Your task to perform on an android device: change the clock display to show seconds Image 0: 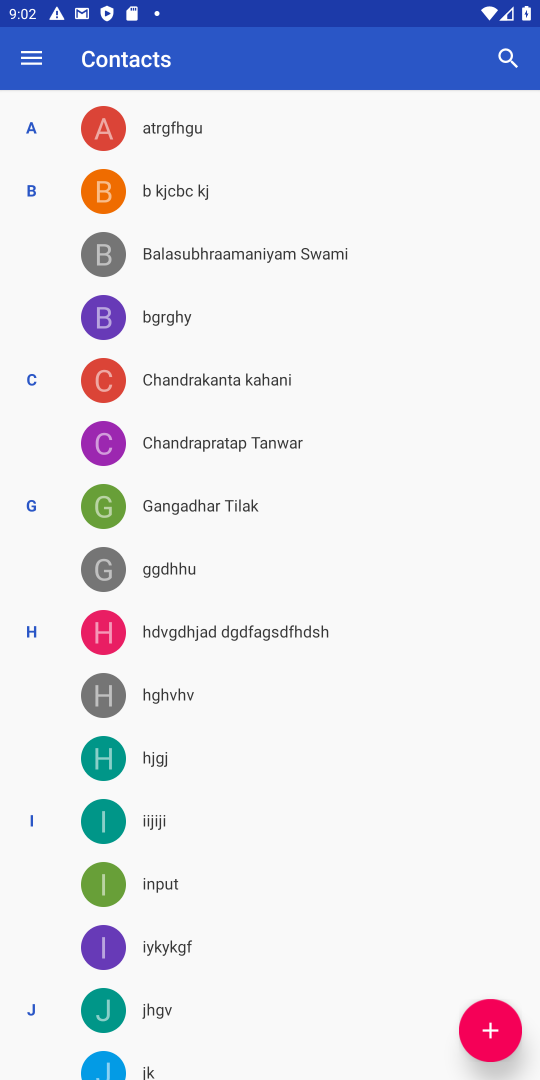
Step 0: press home button
Your task to perform on an android device: change the clock display to show seconds Image 1: 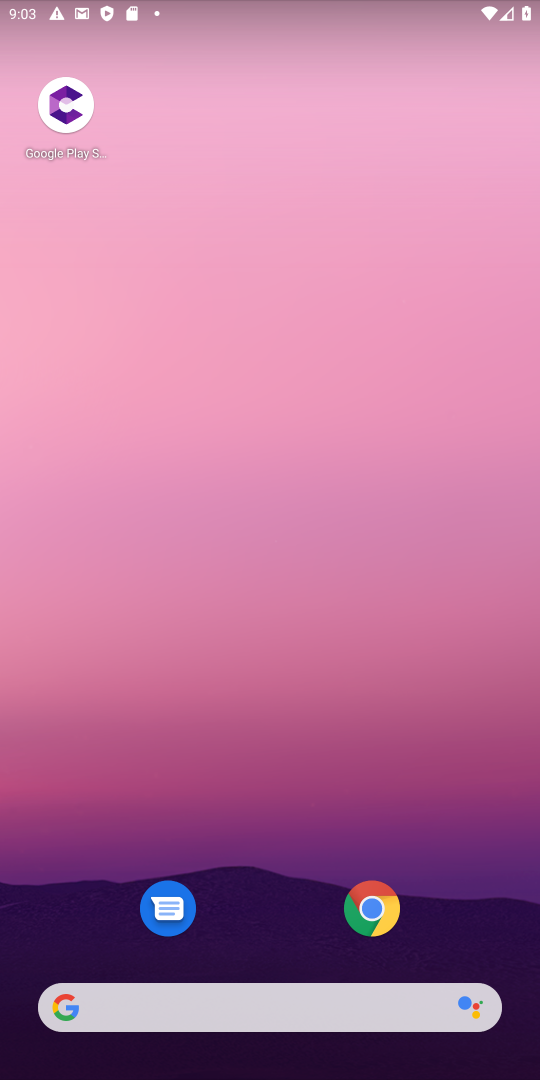
Step 1: drag from (327, 1007) to (349, 4)
Your task to perform on an android device: change the clock display to show seconds Image 2: 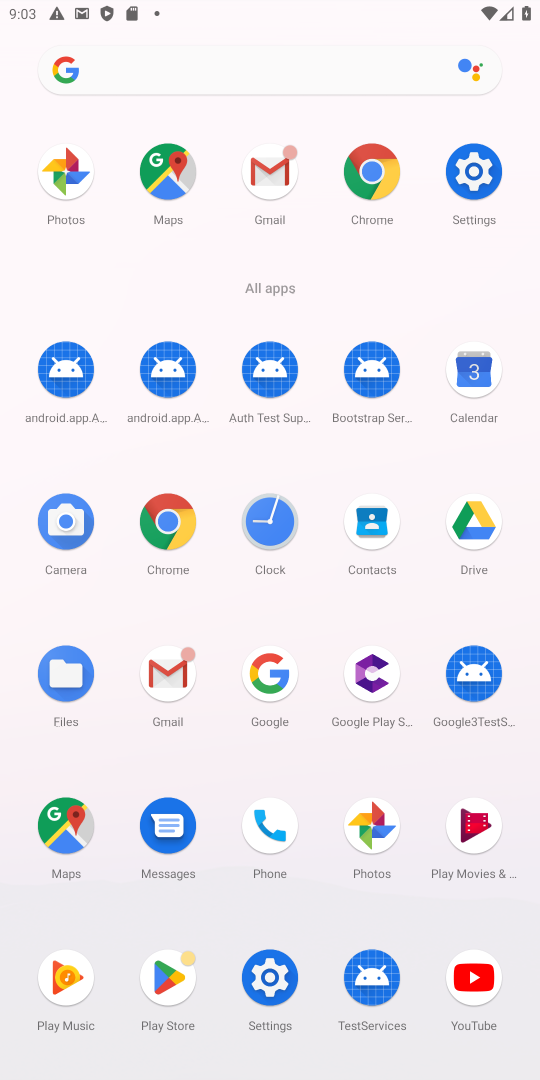
Step 2: click (257, 521)
Your task to perform on an android device: change the clock display to show seconds Image 3: 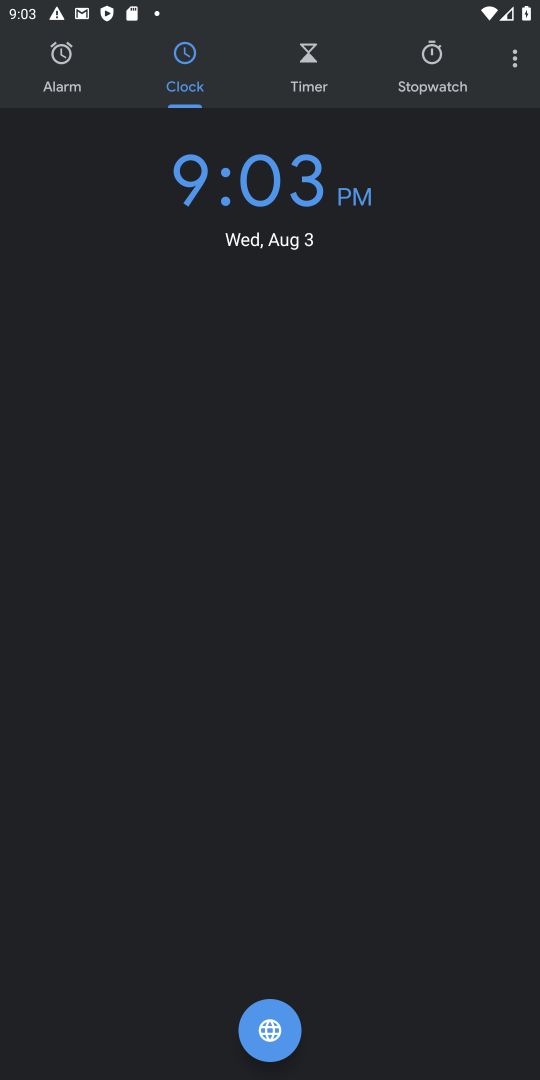
Step 3: click (507, 65)
Your task to perform on an android device: change the clock display to show seconds Image 4: 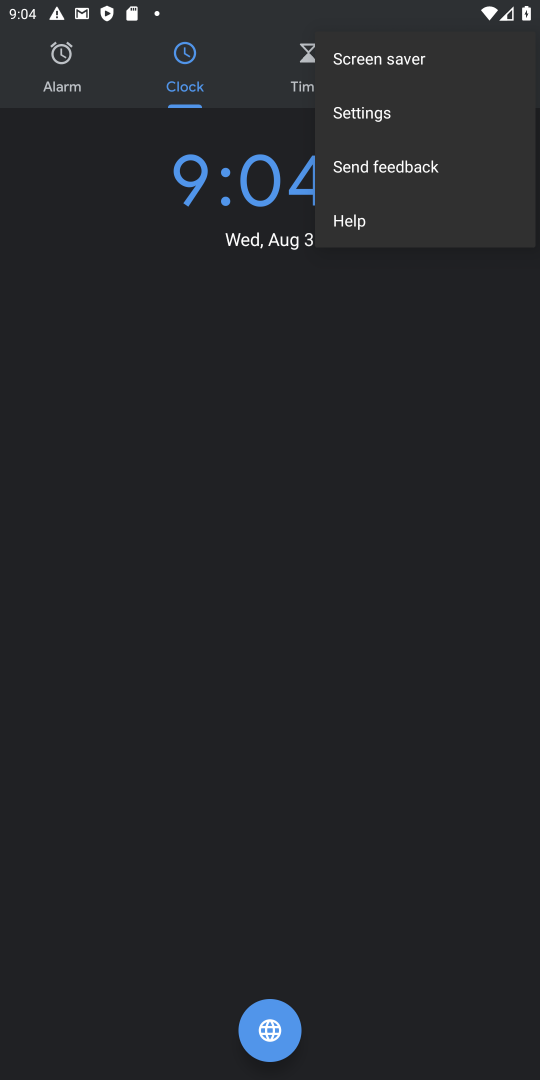
Step 4: click (390, 128)
Your task to perform on an android device: change the clock display to show seconds Image 5: 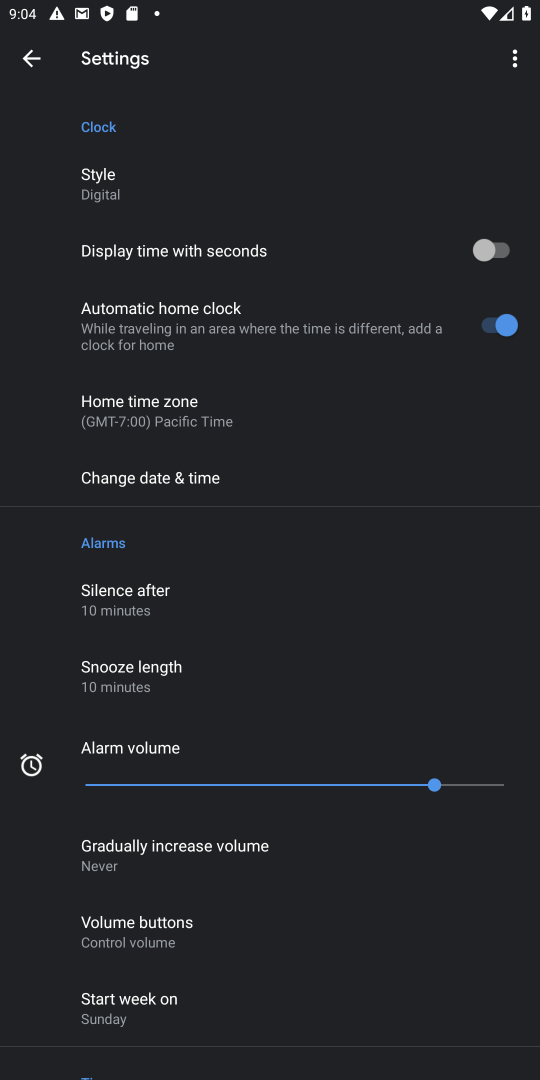
Step 5: click (498, 255)
Your task to perform on an android device: change the clock display to show seconds Image 6: 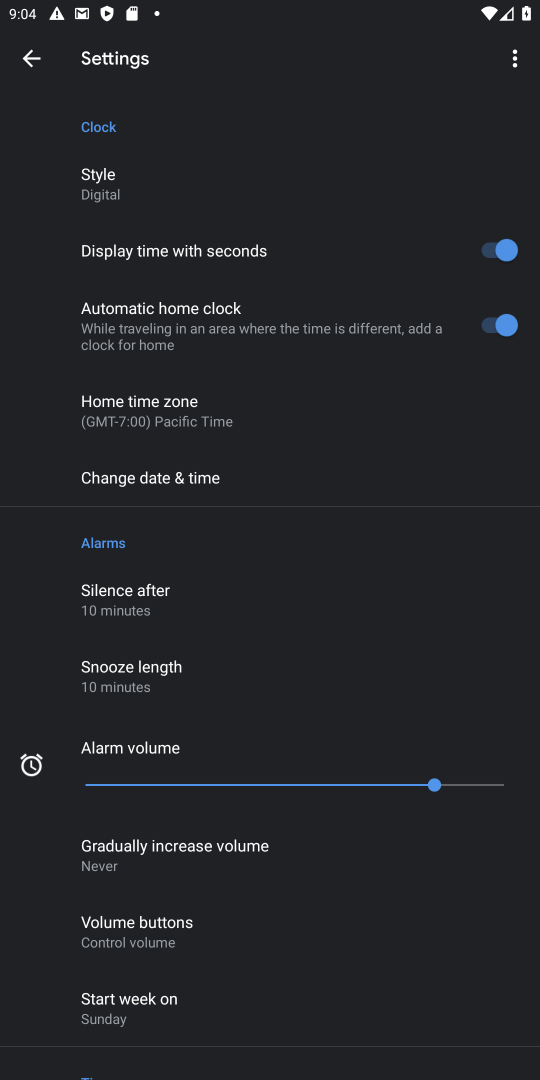
Step 6: task complete